Your task to perform on an android device: turn off location Image 0: 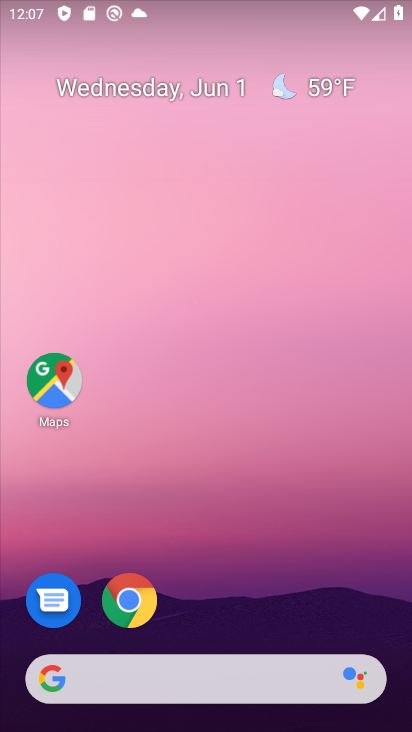
Step 0: drag from (305, 408) to (289, 33)
Your task to perform on an android device: turn off location Image 1: 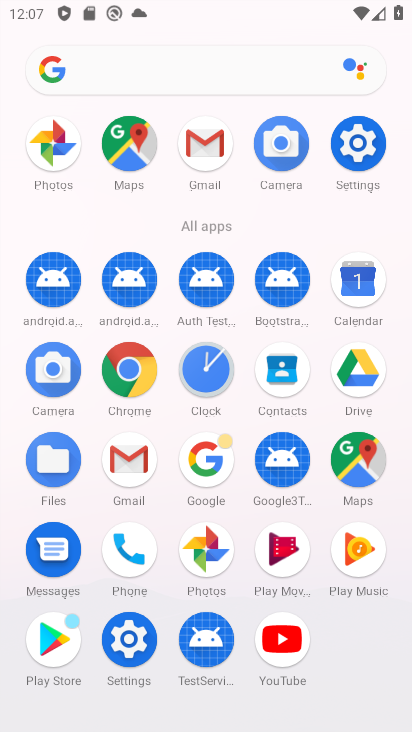
Step 1: click (357, 133)
Your task to perform on an android device: turn off location Image 2: 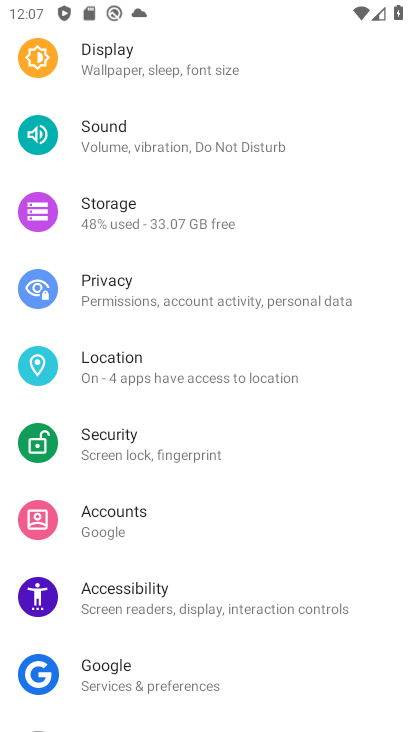
Step 2: click (197, 376)
Your task to perform on an android device: turn off location Image 3: 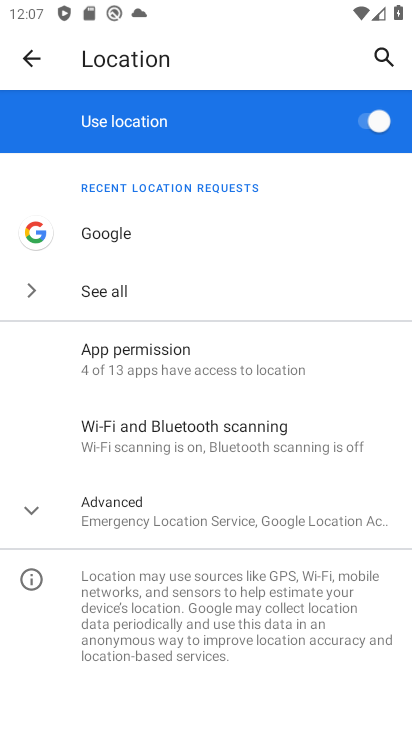
Step 3: click (196, 516)
Your task to perform on an android device: turn off location Image 4: 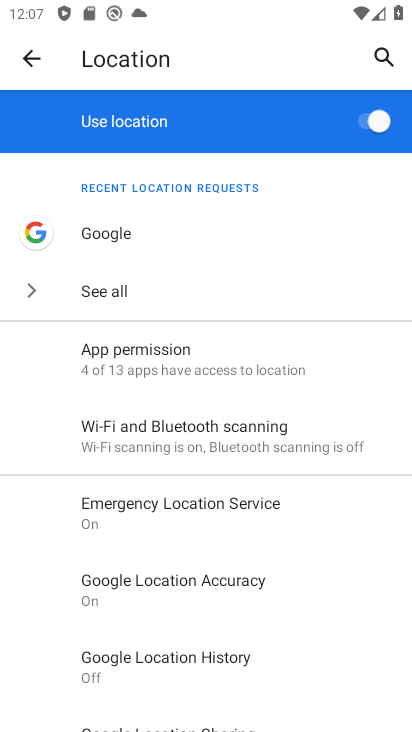
Step 4: click (376, 122)
Your task to perform on an android device: turn off location Image 5: 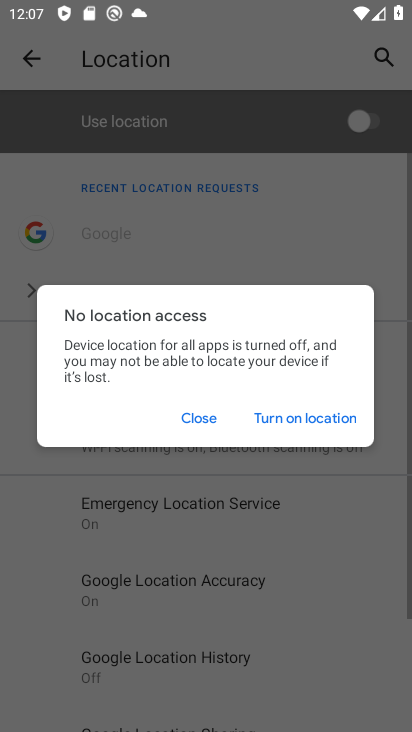
Step 5: task complete